Your task to perform on an android device: set the stopwatch Image 0: 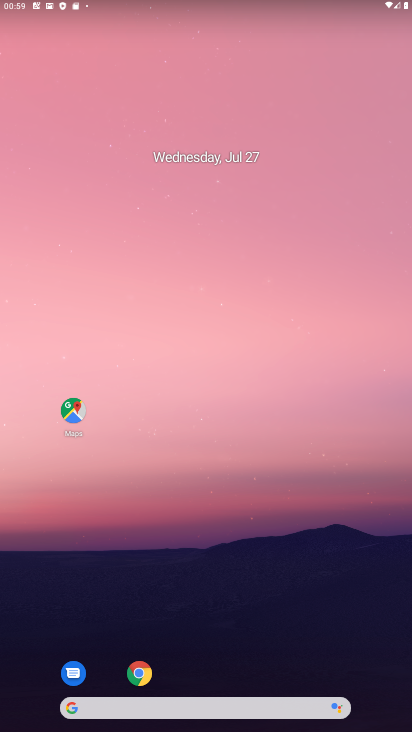
Step 0: drag from (237, 661) to (321, 67)
Your task to perform on an android device: set the stopwatch Image 1: 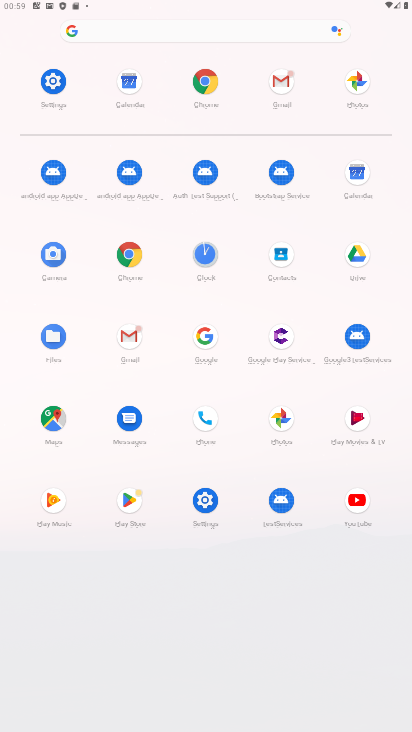
Step 1: click (207, 239)
Your task to perform on an android device: set the stopwatch Image 2: 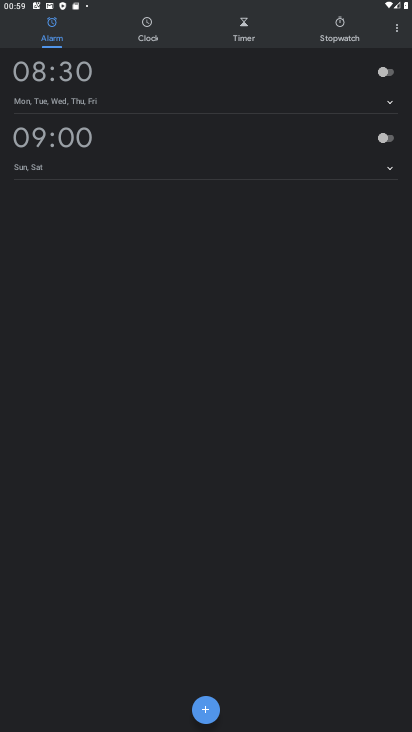
Step 2: click (345, 31)
Your task to perform on an android device: set the stopwatch Image 3: 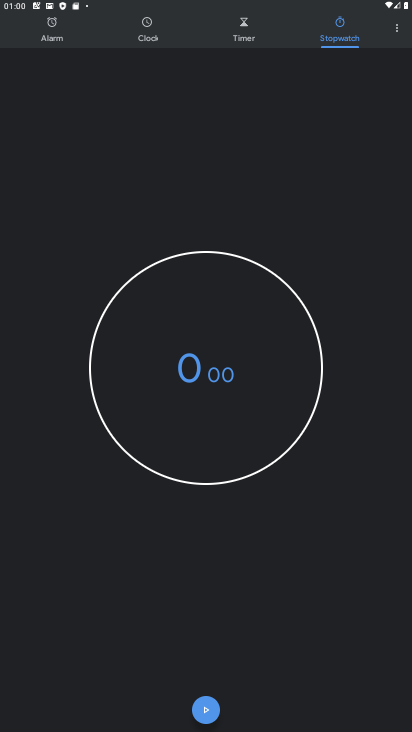
Step 3: task complete